Your task to perform on an android device: open chrome privacy settings Image 0: 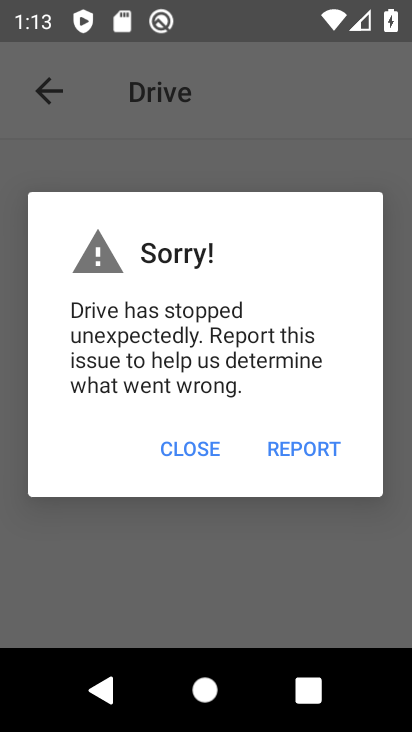
Step 0: press home button
Your task to perform on an android device: open chrome privacy settings Image 1: 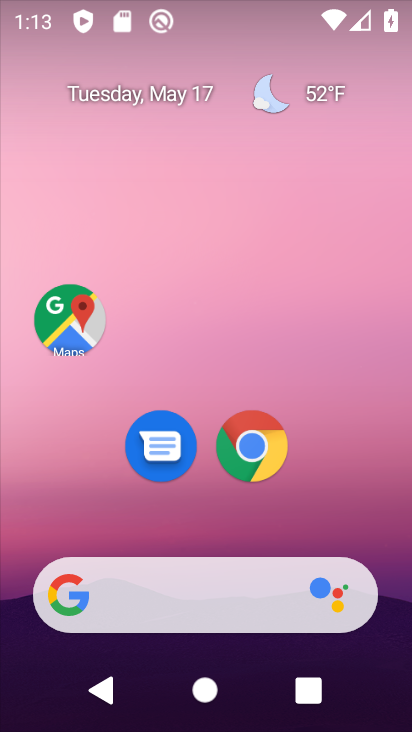
Step 1: click (273, 455)
Your task to perform on an android device: open chrome privacy settings Image 2: 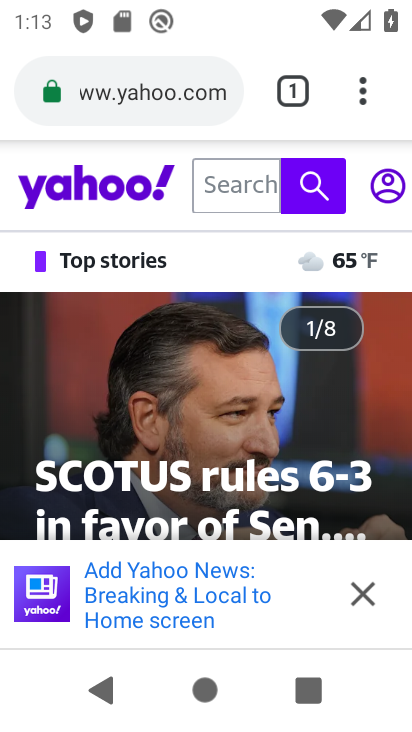
Step 2: click (369, 96)
Your task to perform on an android device: open chrome privacy settings Image 3: 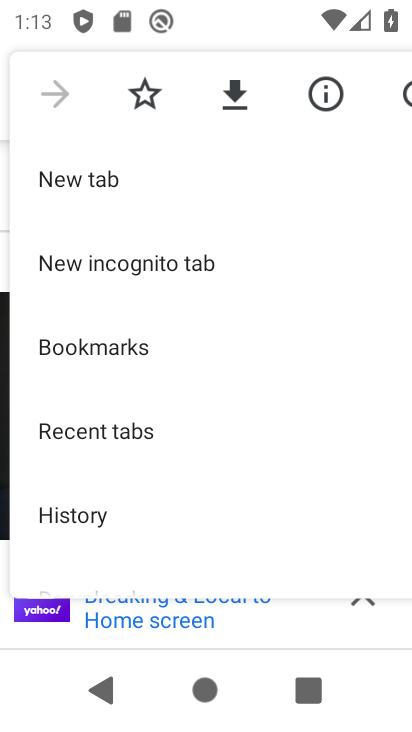
Step 3: drag from (237, 436) to (210, 179)
Your task to perform on an android device: open chrome privacy settings Image 4: 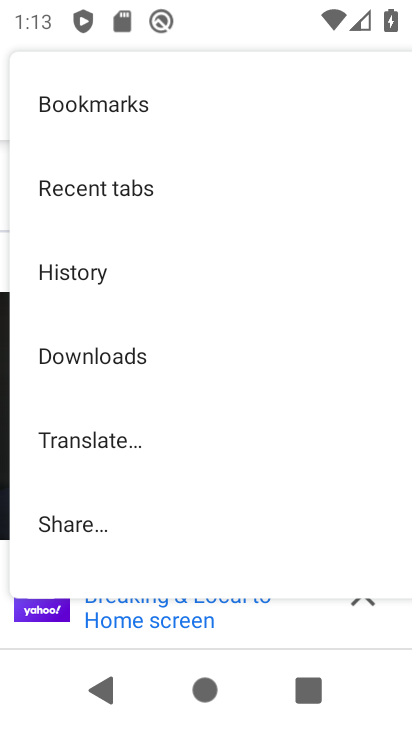
Step 4: drag from (247, 499) to (173, 188)
Your task to perform on an android device: open chrome privacy settings Image 5: 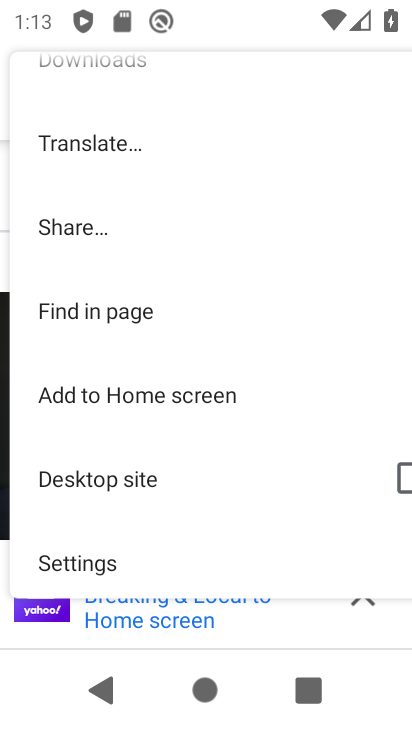
Step 5: click (148, 555)
Your task to perform on an android device: open chrome privacy settings Image 6: 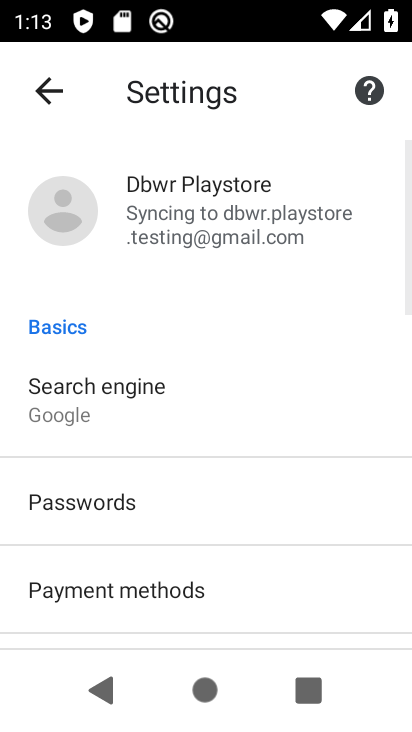
Step 6: drag from (203, 514) to (173, 19)
Your task to perform on an android device: open chrome privacy settings Image 7: 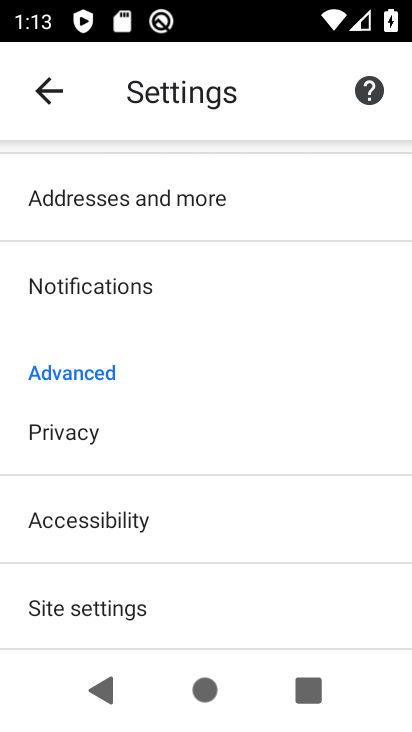
Step 7: click (134, 439)
Your task to perform on an android device: open chrome privacy settings Image 8: 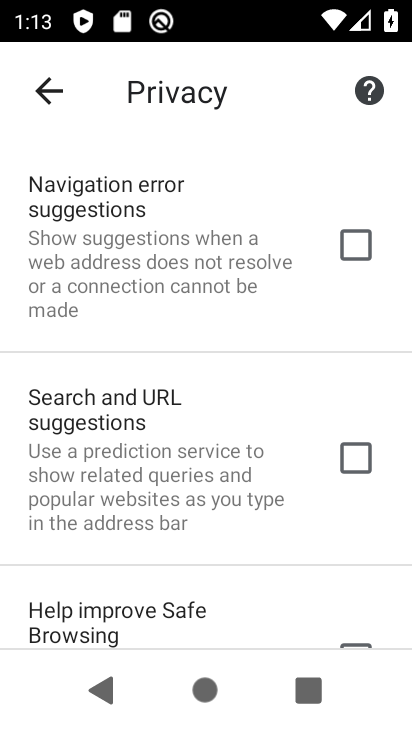
Step 8: task complete